Your task to perform on an android device: Open settings on Google Maps Image 0: 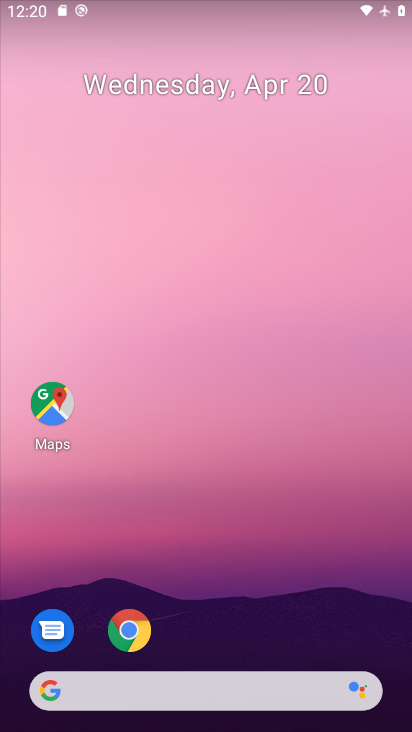
Step 0: drag from (165, 690) to (301, 190)
Your task to perform on an android device: Open settings on Google Maps Image 1: 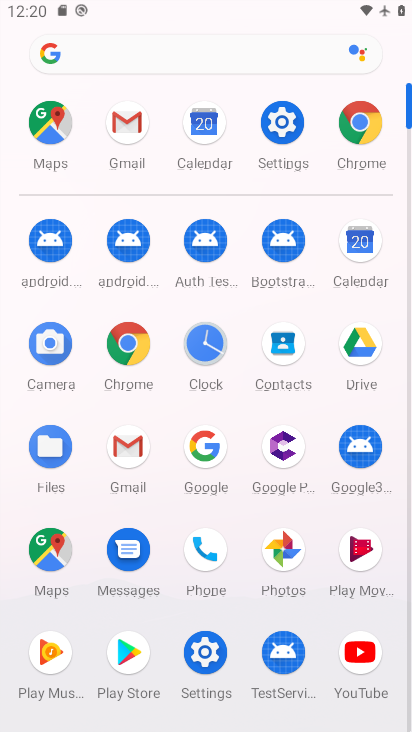
Step 1: click (56, 554)
Your task to perform on an android device: Open settings on Google Maps Image 2: 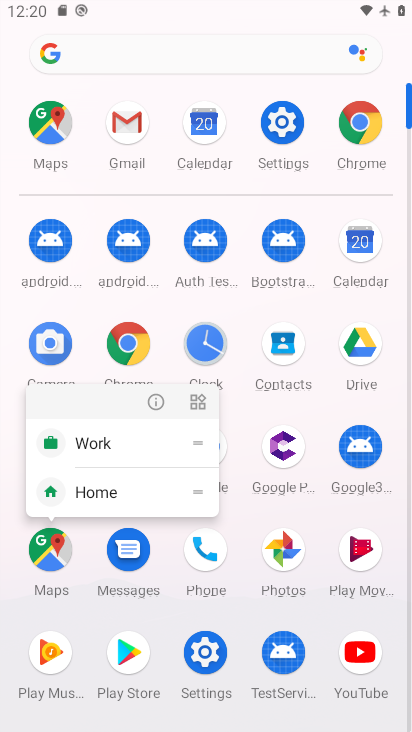
Step 2: click (48, 551)
Your task to perform on an android device: Open settings on Google Maps Image 3: 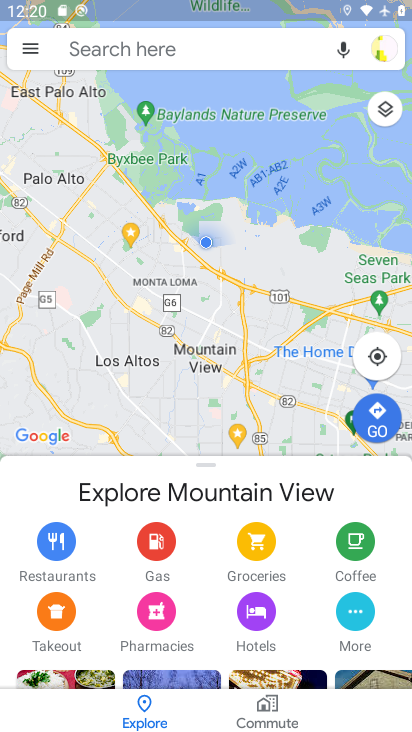
Step 3: click (29, 49)
Your task to perform on an android device: Open settings on Google Maps Image 4: 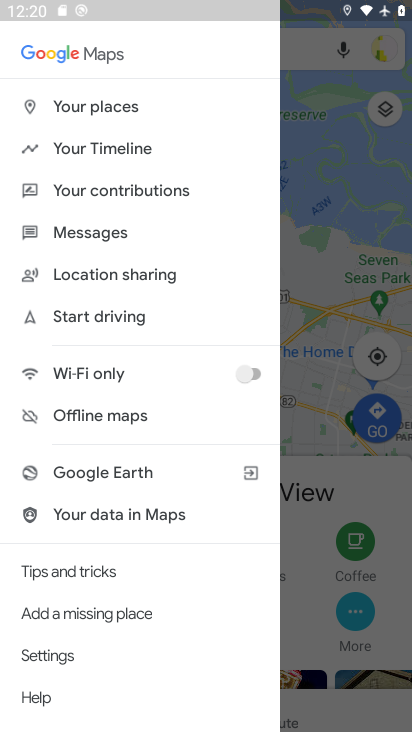
Step 4: click (60, 655)
Your task to perform on an android device: Open settings on Google Maps Image 5: 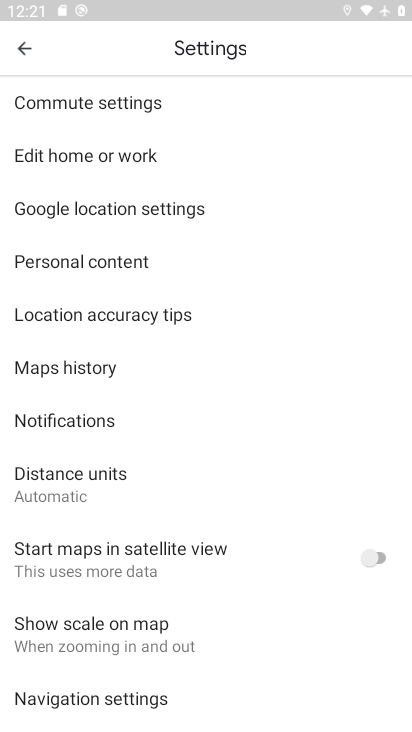
Step 5: task complete